Your task to perform on an android device: Go to ESPN.com Image 0: 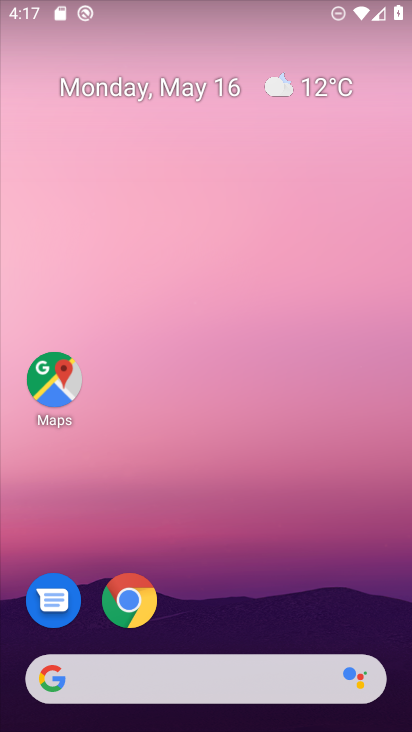
Step 0: click (130, 592)
Your task to perform on an android device: Go to ESPN.com Image 1: 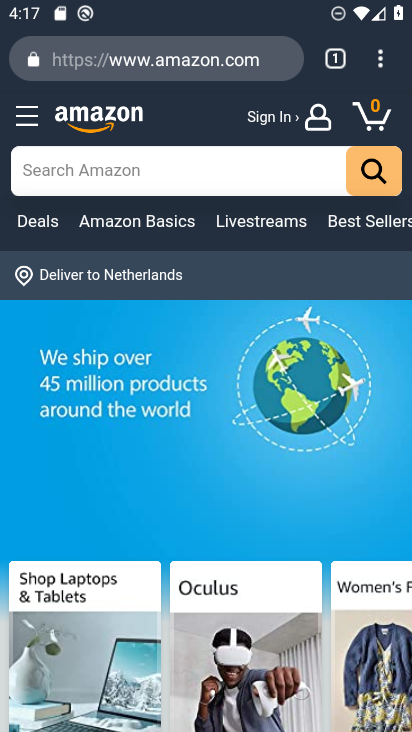
Step 1: click (217, 59)
Your task to perform on an android device: Go to ESPN.com Image 2: 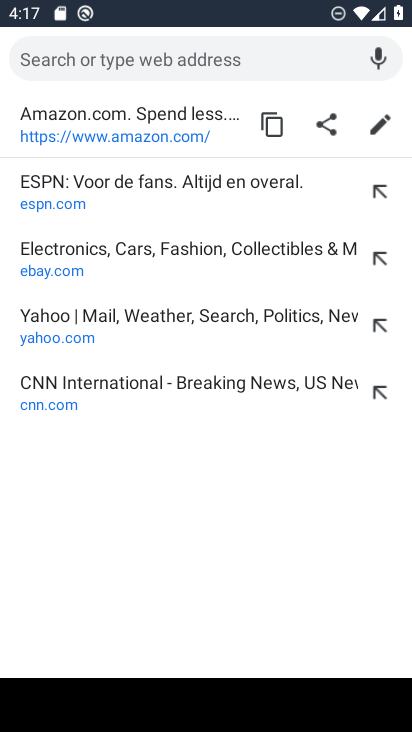
Step 2: type "espn.com"
Your task to perform on an android device: Go to ESPN.com Image 3: 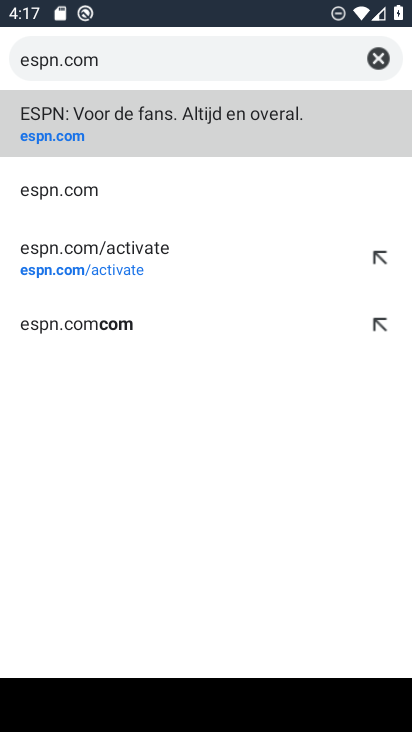
Step 3: click (64, 135)
Your task to perform on an android device: Go to ESPN.com Image 4: 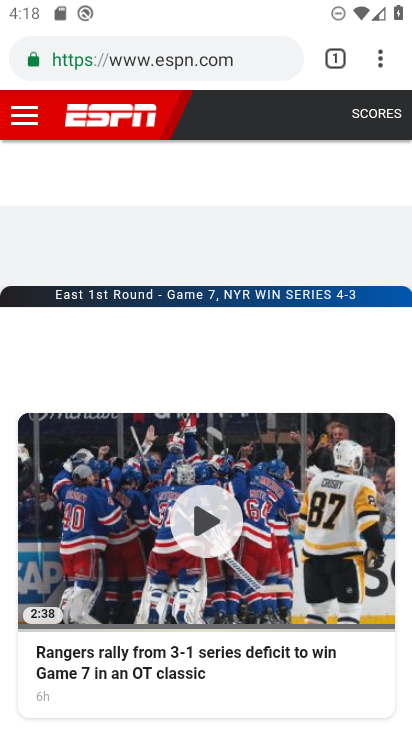
Step 4: task complete